Your task to perform on an android device: visit the assistant section in the google photos Image 0: 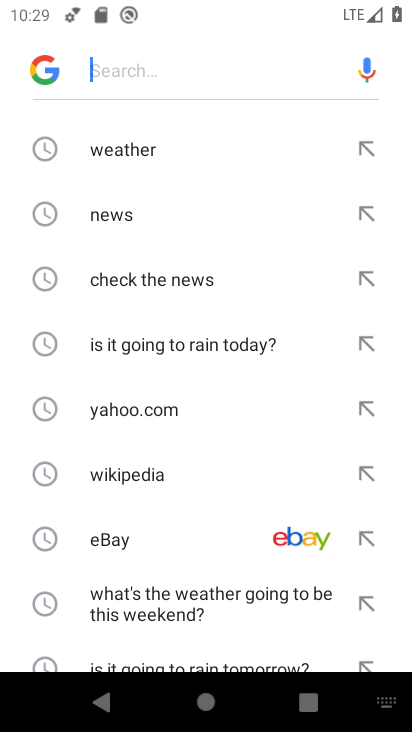
Step 0: press home button
Your task to perform on an android device: visit the assistant section in the google photos Image 1: 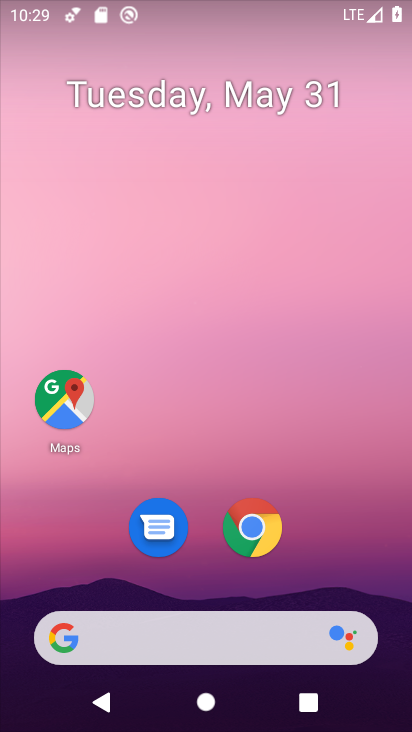
Step 1: drag from (366, 591) to (388, 9)
Your task to perform on an android device: visit the assistant section in the google photos Image 2: 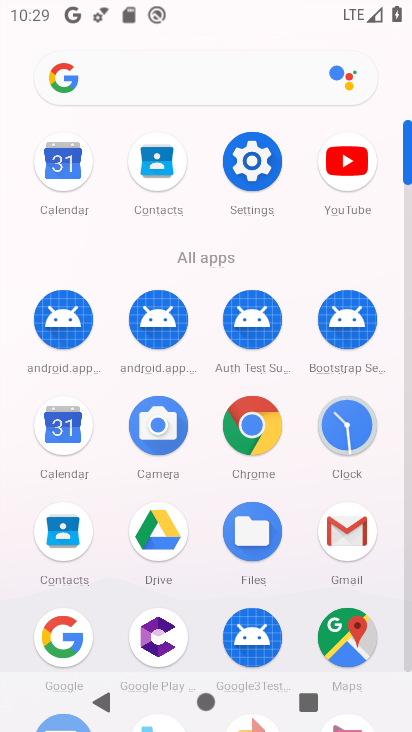
Step 2: click (406, 504)
Your task to perform on an android device: visit the assistant section in the google photos Image 3: 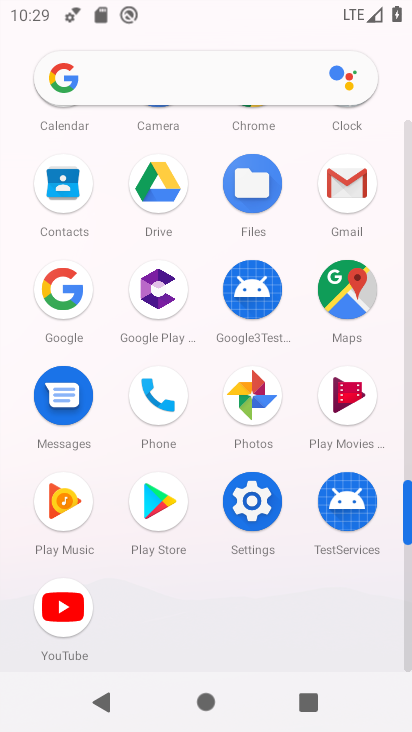
Step 3: click (253, 403)
Your task to perform on an android device: visit the assistant section in the google photos Image 4: 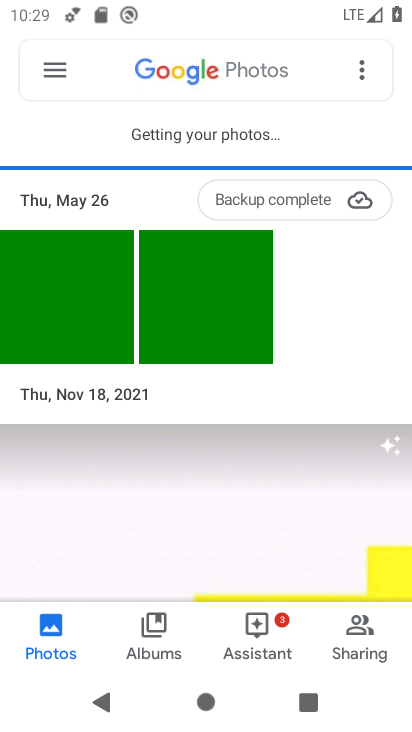
Step 4: click (245, 643)
Your task to perform on an android device: visit the assistant section in the google photos Image 5: 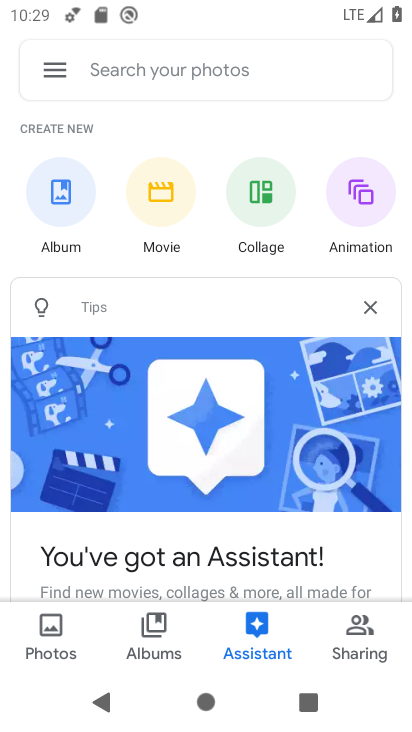
Step 5: task complete